Your task to perform on an android device: Open calendar and show me the second week of next month Image 0: 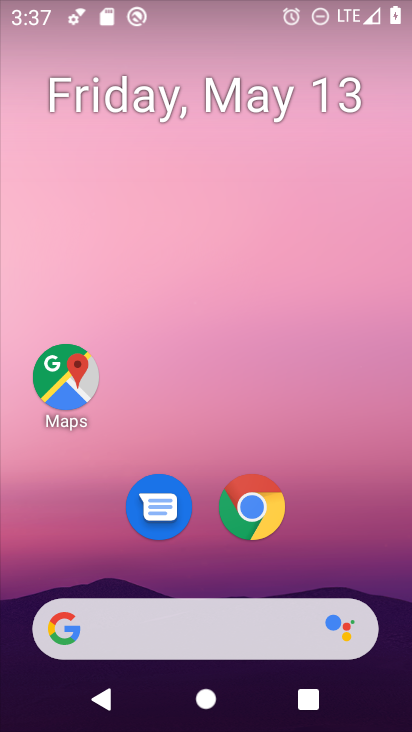
Step 0: drag from (322, 516) to (301, 155)
Your task to perform on an android device: Open calendar and show me the second week of next month Image 1: 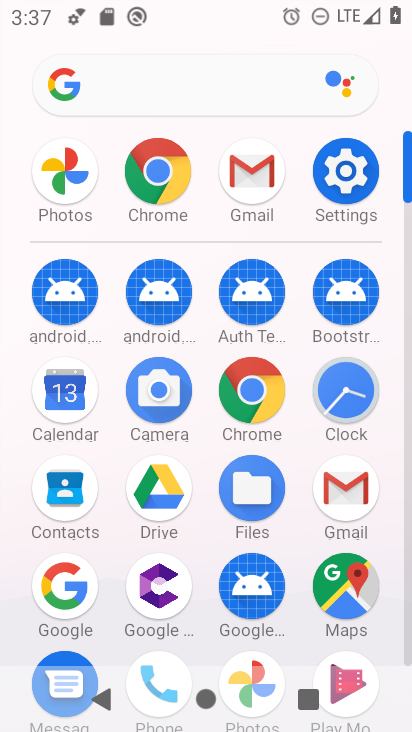
Step 1: click (68, 407)
Your task to perform on an android device: Open calendar and show me the second week of next month Image 2: 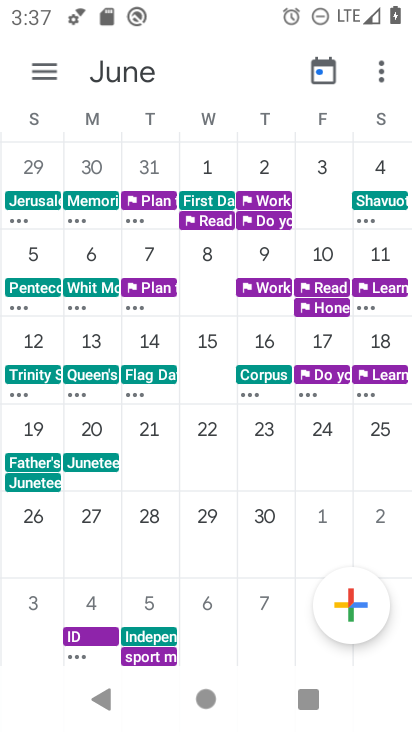
Step 2: click (31, 72)
Your task to perform on an android device: Open calendar and show me the second week of next month Image 3: 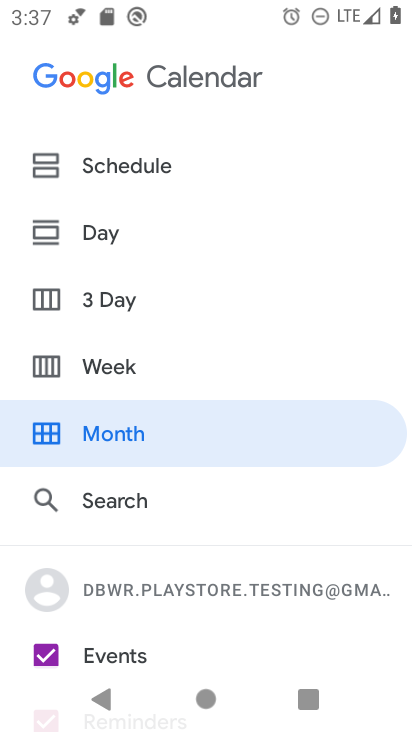
Step 3: click (165, 412)
Your task to perform on an android device: Open calendar and show me the second week of next month Image 4: 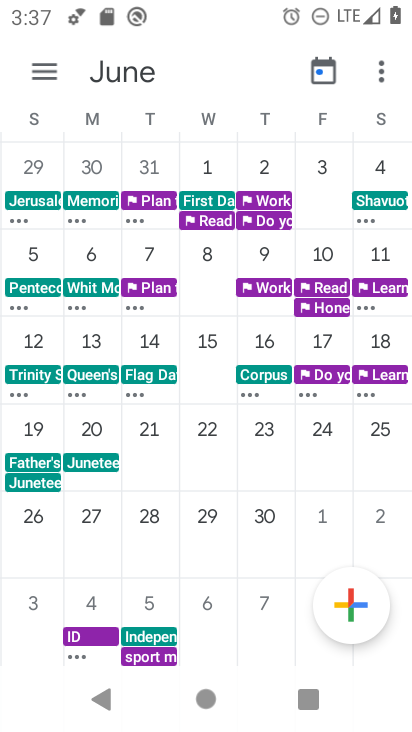
Step 4: click (166, 373)
Your task to perform on an android device: Open calendar and show me the second week of next month Image 5: 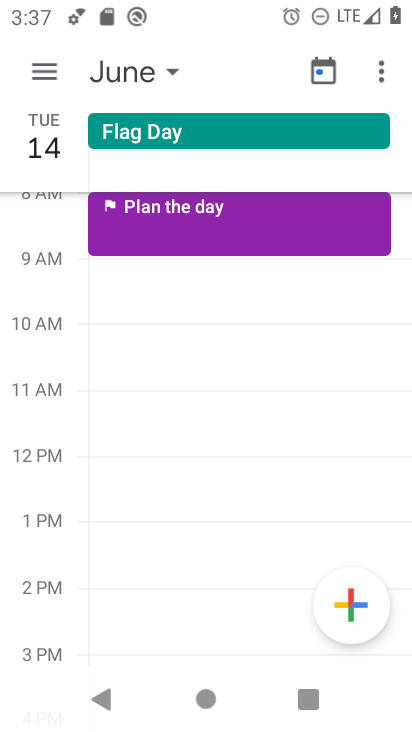
Step 5: click (58, 71)
Your task to perform on an android device: Open calendar and show me the second week of next month Image 6: 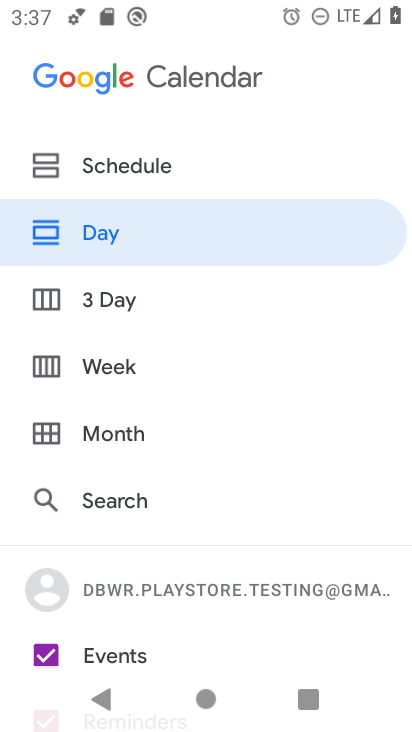
Step 6: click (130, 362)
Your task to perform on an android device: Open calendar and show me the second week of next month Image 7: 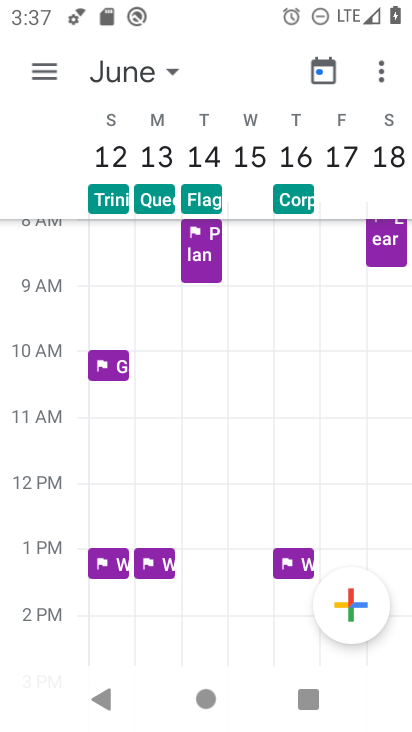
Step 7: task complete